Your task to perform on an android device: Search for seafood restaurants on Google Maps Image 0: 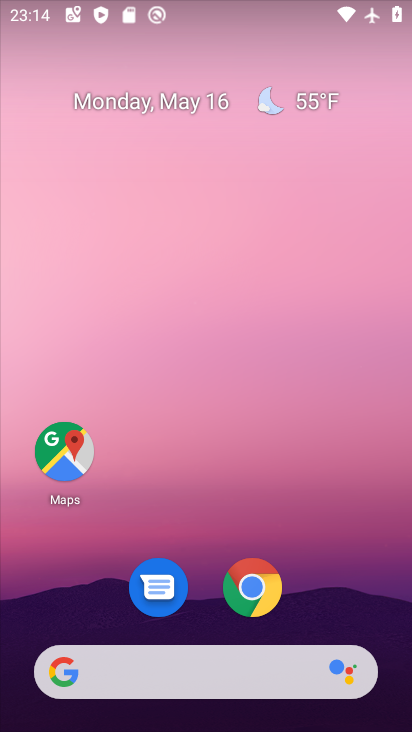
Step 0: drag from (302, 367) to (230, 5)
Your task to perform on an android device: Search for seafood restaurants on Google Maps Image 1: 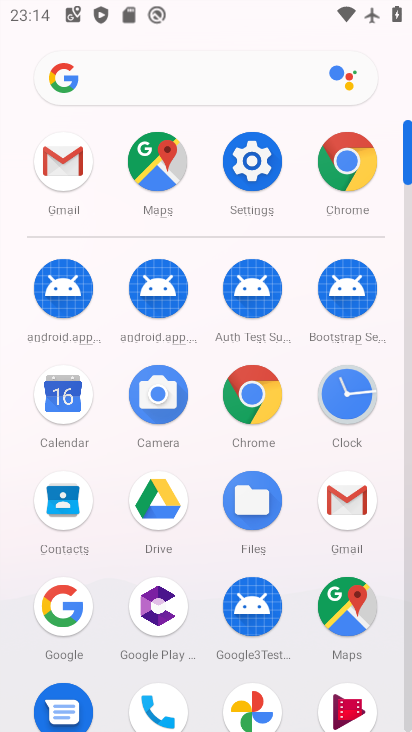
Step 1: drag from (19, 557) to (25, 251)
Your task to perform on an android device: Search for seafood restaurants on Google Maps Image 2: 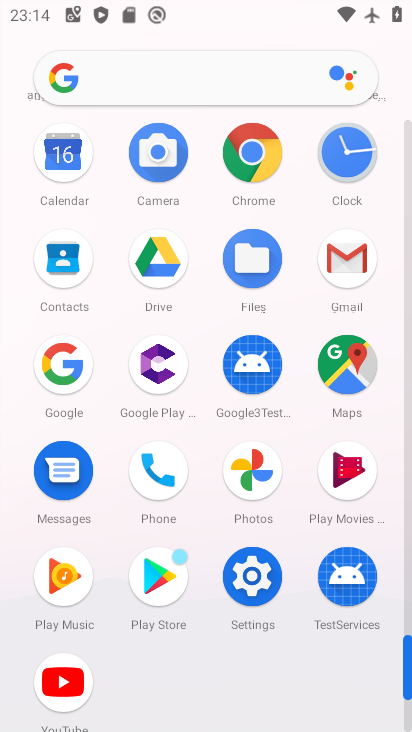
Step 2: click (348, 358)
Your task to perform on an android device: Search for seafood restaurants on Google Maps Image 3: 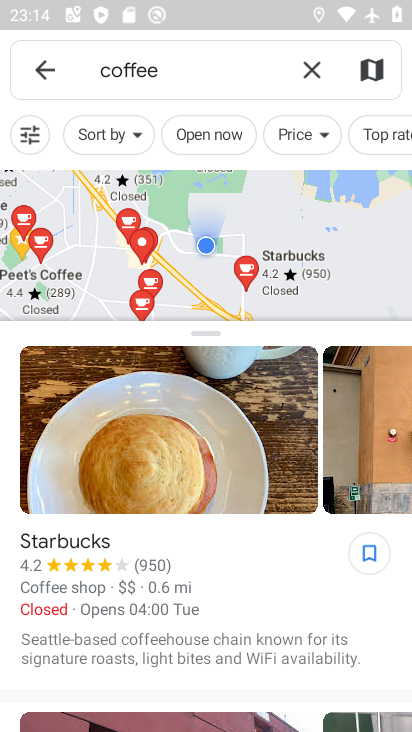
Step 3: click (309, 69)
Your task to perform on an android device: Search for seafood restaurants on Google Maps Image 4: 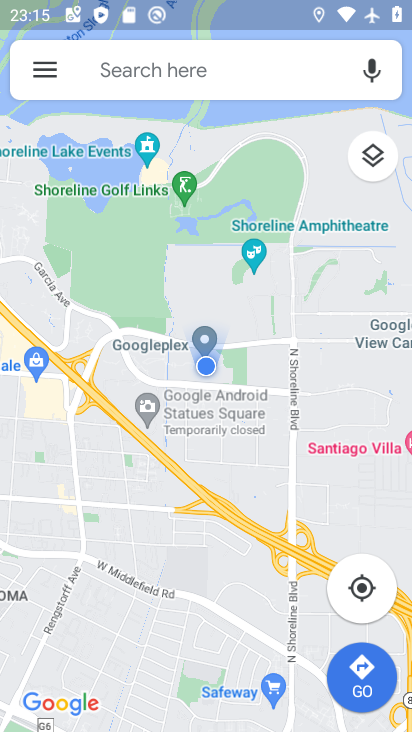
Step 4: click (237, 70)
Your task to perform on an android device: Search for seafood restaurants on Google Maps Image 5: 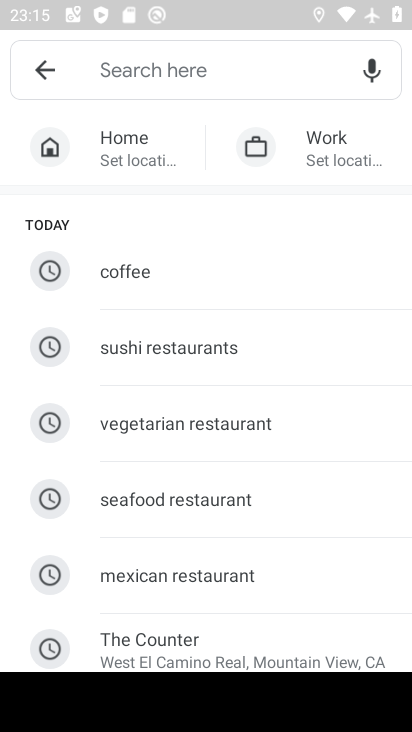
Step 5: click (183, 480)
Your task to perform on an android device: Search for seafood restaurants on Google Maps Image 6: 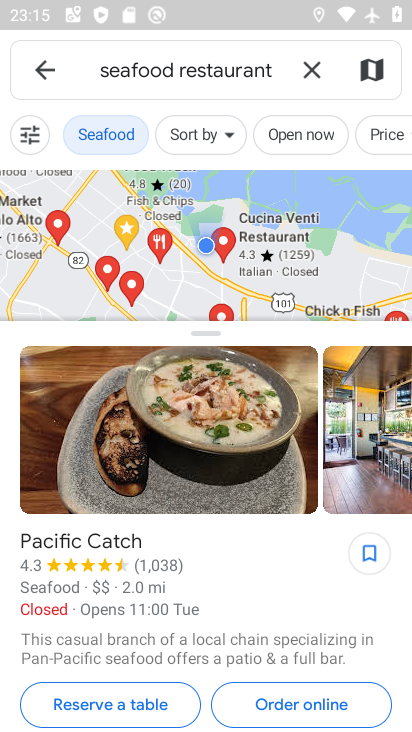
Step 6: task complete